Your task to perform on an android device: Check the weather Image 0: 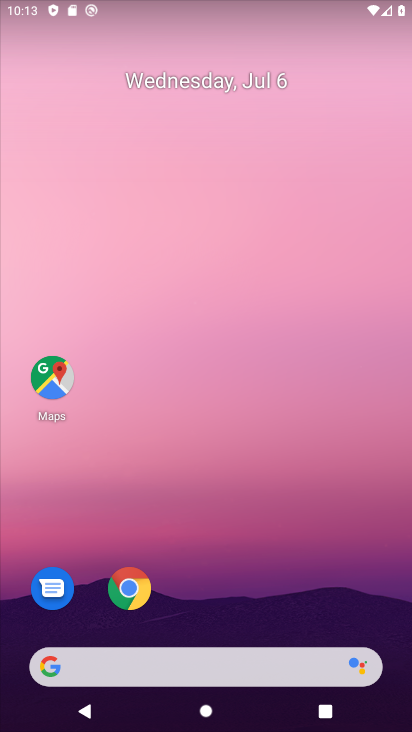
Step 0: click (198, 663)
Your task to perform on an android device: Check the weather Image 1: 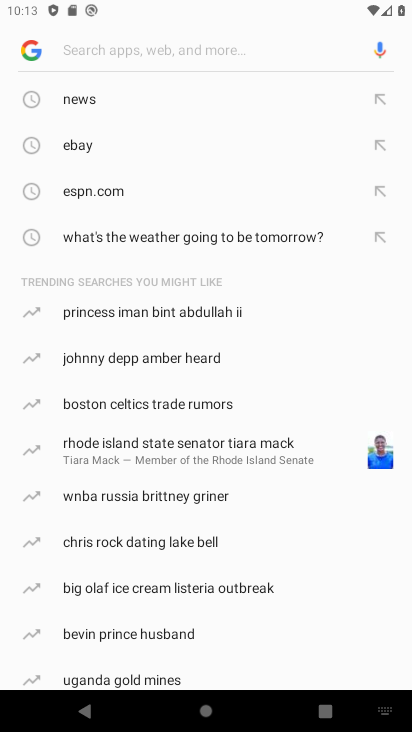
Step 1: type "weather"
Your task to perform on an android device: Check the weather Image 2: 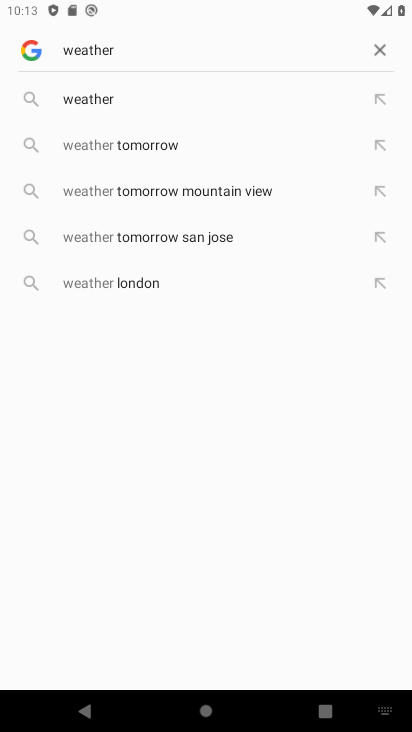
Step 2: click (134, 101)
Your task to perform on an android device: Check the weather Image 3: 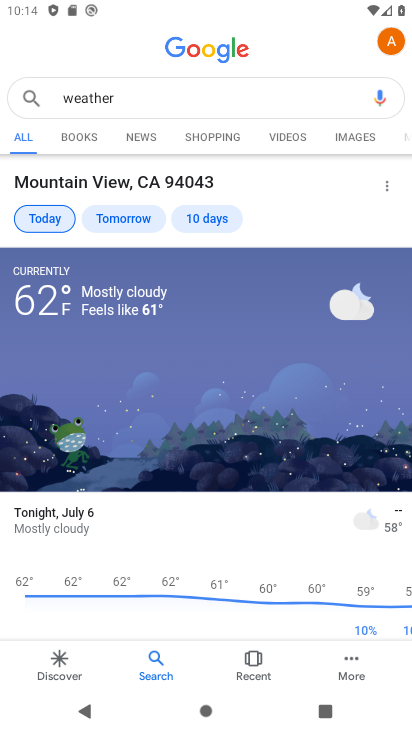
Step 3: task complete